Your task to perform on an android device: turn off airplane mode Image 0: 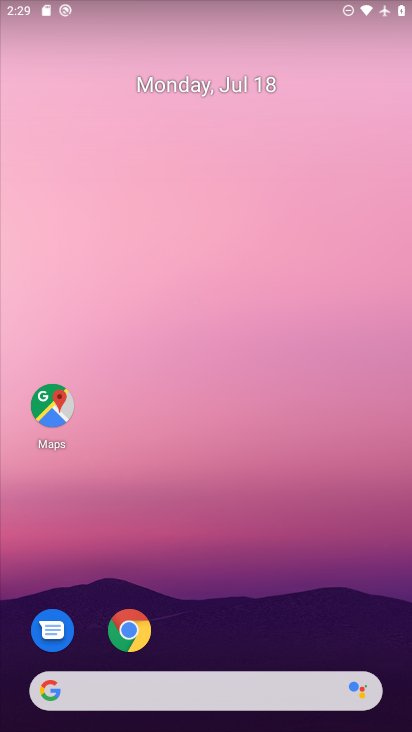
Step 0: press home button
Your task to perform on an android device: turn off airplane mode Image 1: 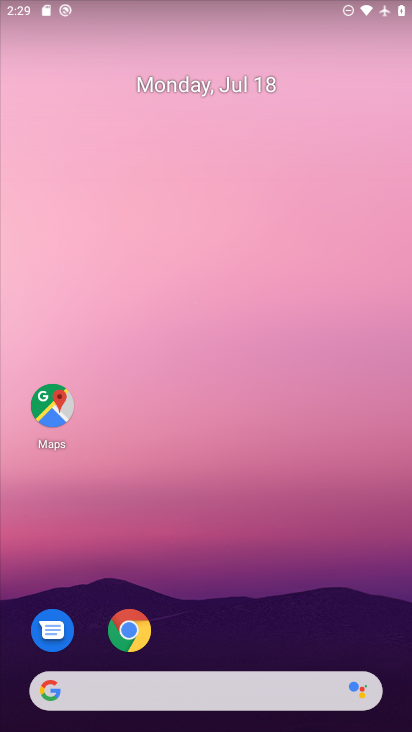
Step 1: drag from (226, 32) to (204, 572)
Your task to perform on an android device: turn off airplane mode Image 2: 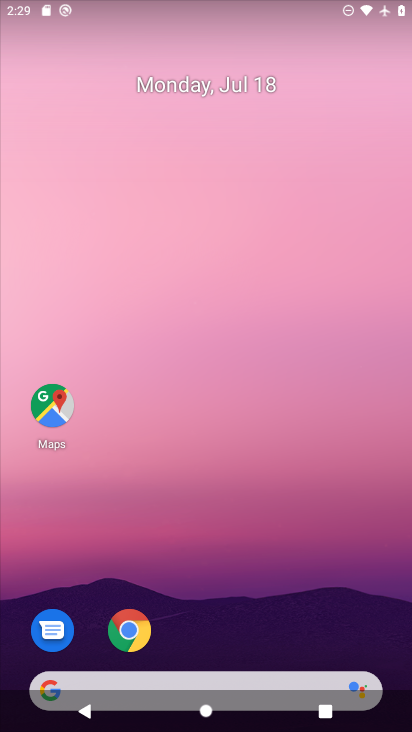
Step 2: drag from (228, 2) to (241, 588)
Your task to perform on an android device: turn off airplane mode Image 3: 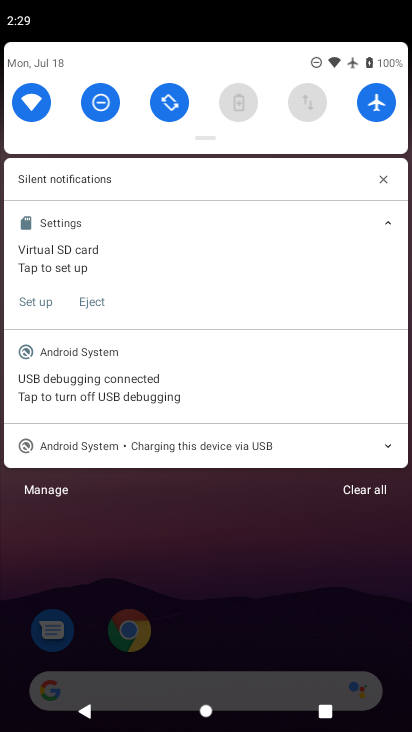
Step 3: click (369, 101)
Your task to perform on an android device: turn off airplane mode Image 4: 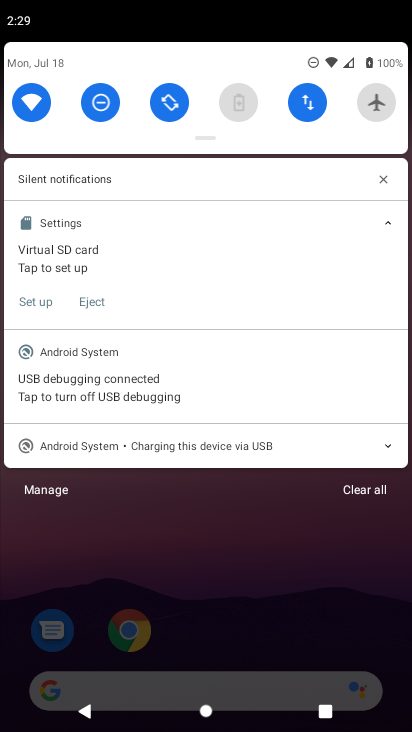
Step 4: task complete